Your task to perform on an android device: move an email to a new category in the gmail app Image 0: 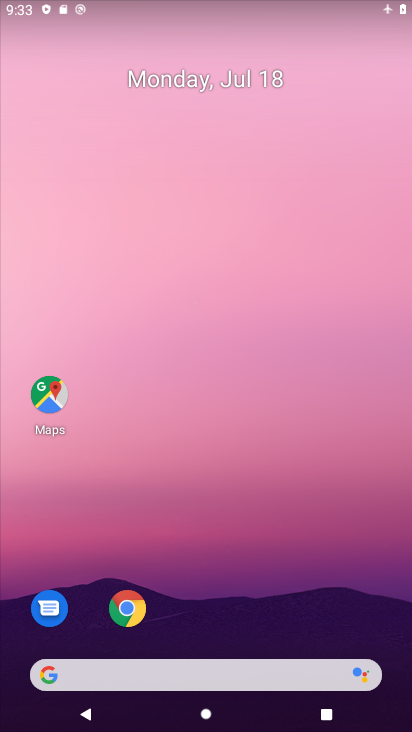
Step 0: drag from (187, 371) to (155, 149)
Your task to perform on an android device: move an email to a new category in the gmail app Image 1: 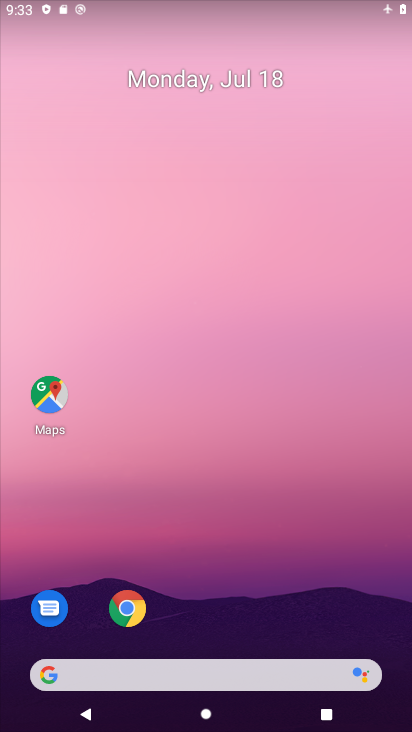
Step 1: drag from (258, 713) to (207, 126)
Your task to perform on an android device: move an email to a new category in the gmail app Image 2: 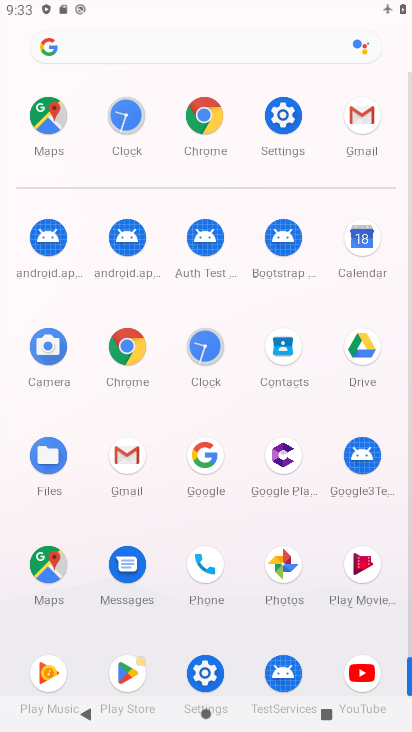
Step 2: click (130, 448)
Your task to perform on an android device: move an email to a new category in the gmail app Image 3: 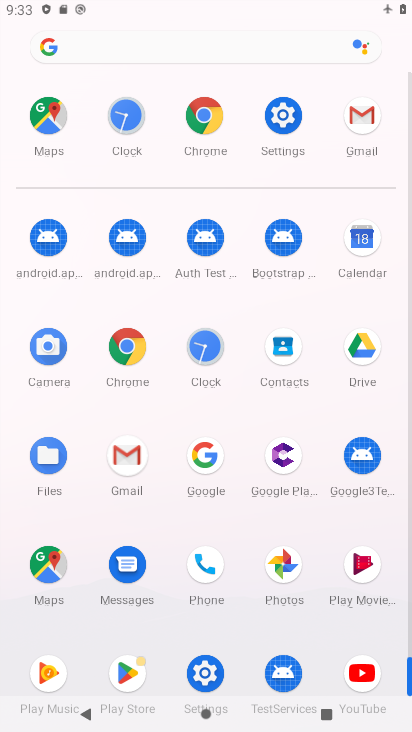
Step 3: click (128, 448)
Your task to perform on an android device: move an email to a new category in the gmail app Image 4: 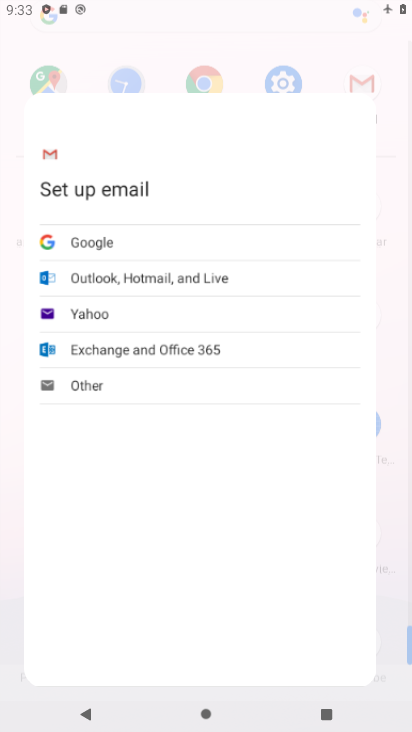
Step 4: click (128, 448)
Your task to perform on an android device: move an email to a new category in the gmail app Image 5: 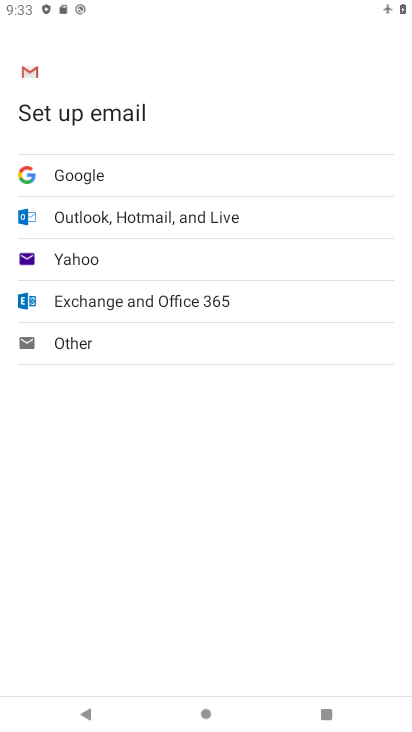
Step 5: press back button
Your task to perform on an android device: move an email to a new category in the gmail app Image 6: 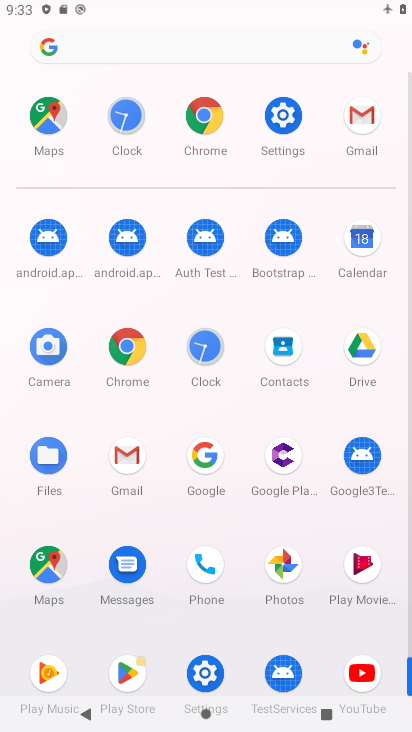
Step 6: click (118, 451)
Your task to perform on an android device: move an email to a new category in the gmail app Image 7: 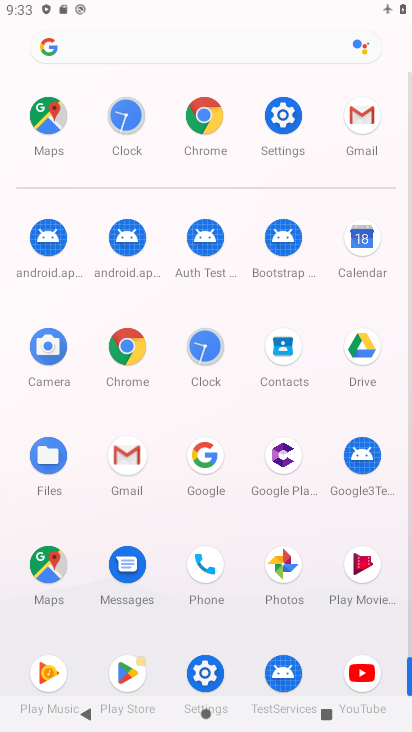
Step 7: click (118, 451)
Your task to perform on an android device: move an email to a new category in the gmail app Image 8: 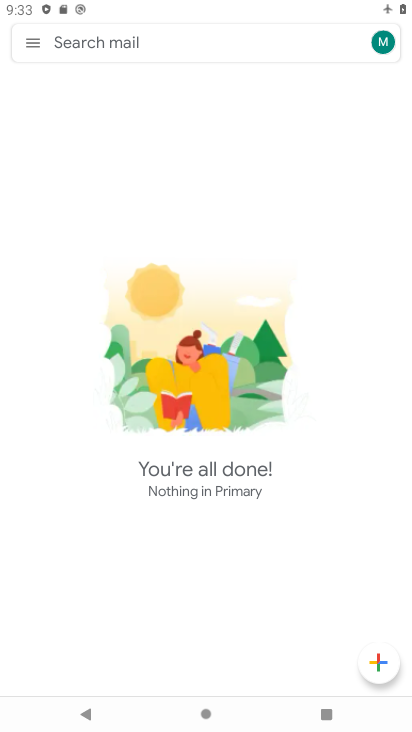
Step 8: click (29, 44)
Your task to perform on an android device: move an email to a new category in the gmail app Image 9: 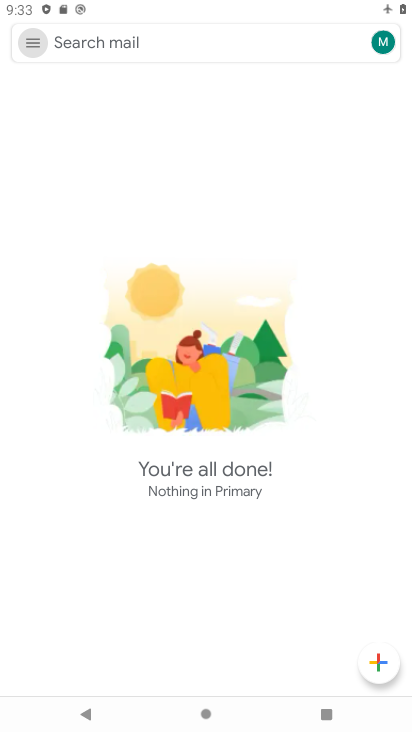
Step 9: click (29, 44)
Your task to perform on an android device: move an email to a new category in the gmail app Image 10: 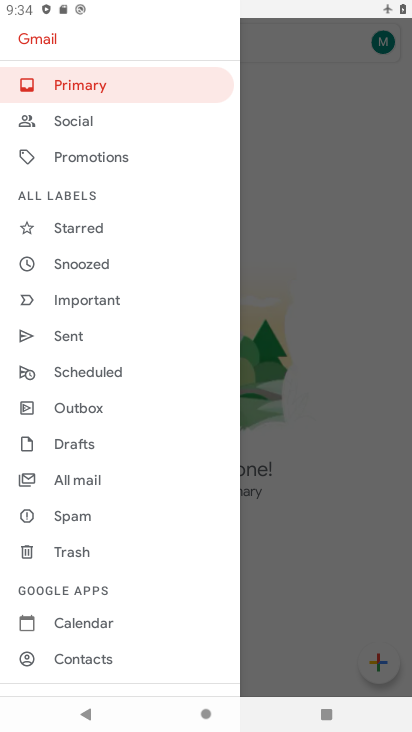
Step 10: click (71, 479)
Your task to perform on an android device: move an email to a new category in the gmail app Image 11: 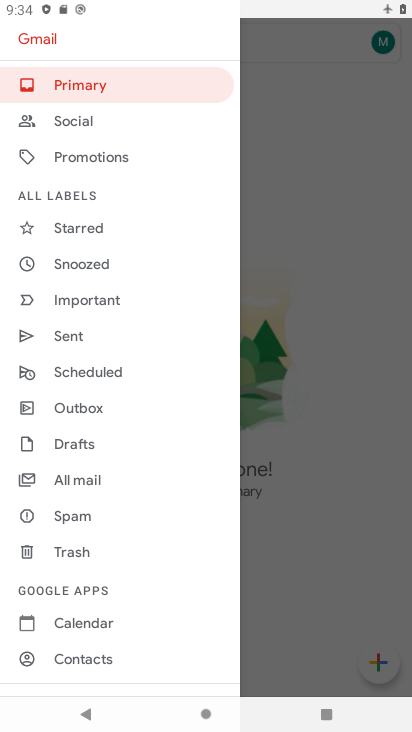
Step 11: click (71, 480)
Your task to perform on an android device: move an email to a new category in the gmail app Image 12: 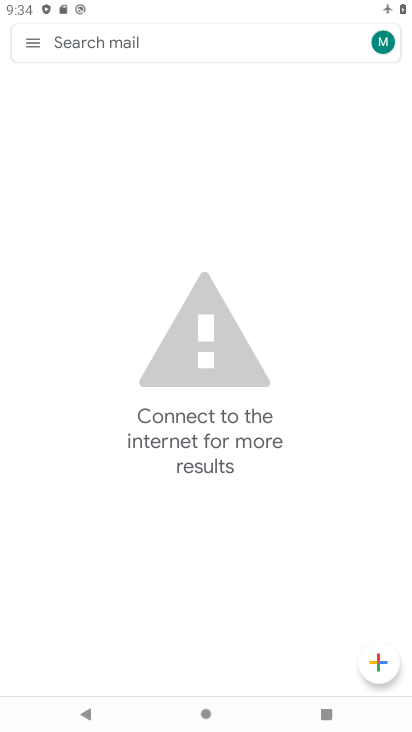
Step 12: task complete